Your task to perform on an android device: Go to Wikipedia Image 0: 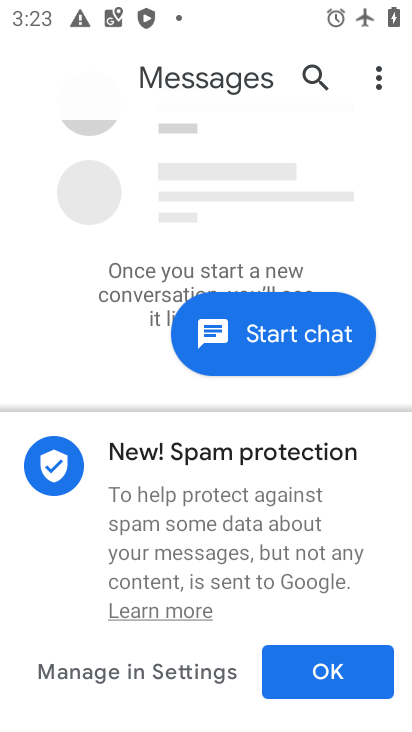
Step 0: press home button
Your task to perform on an android device: Go to Wikipedia Image 1: 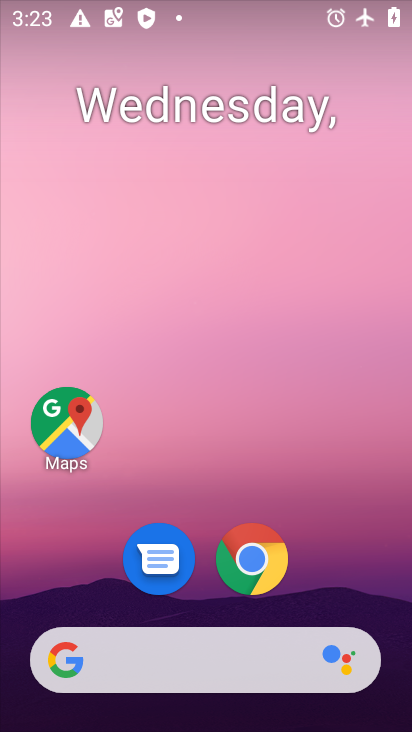
Step 1: drag from (208, 604) to (212, 187)
Your task to perform on an android device: Go to Wikipedia Image 2: 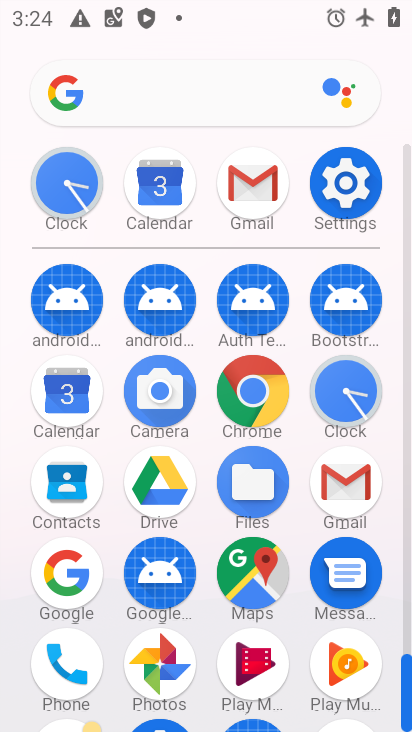
Step 2: click (248, 397)
Your task to perform on an android device: Go to Wikipedia Image 3: 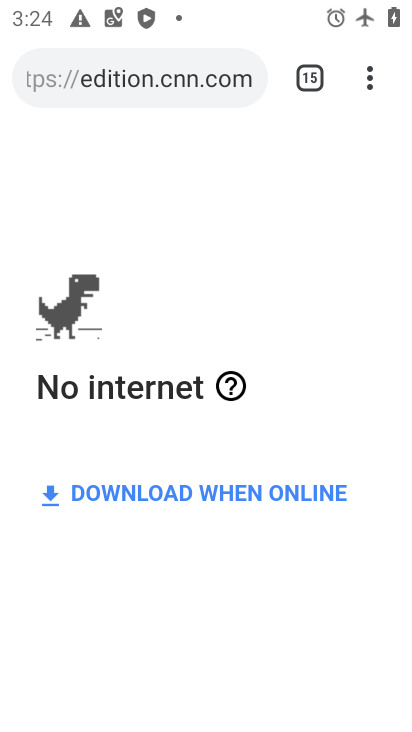
Step 3: task complete